Your task to perform on an android device: find snoozed emails in the gmail app Image 0: 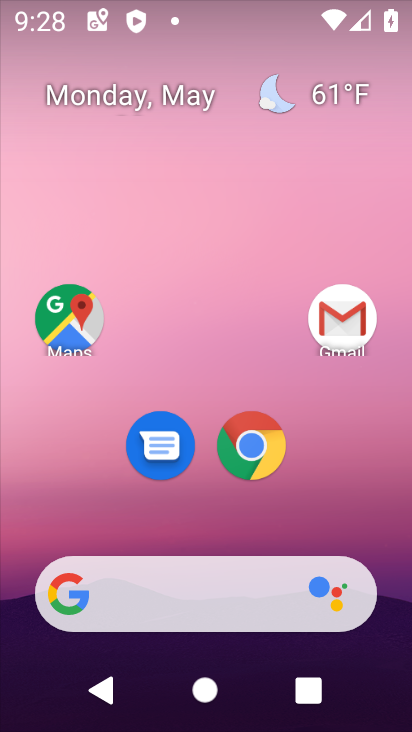
Step 0: drag from (378, 535) to (367, 192)
Your task to perform on an android device: find snoozed emails in the gmail app Image 1: 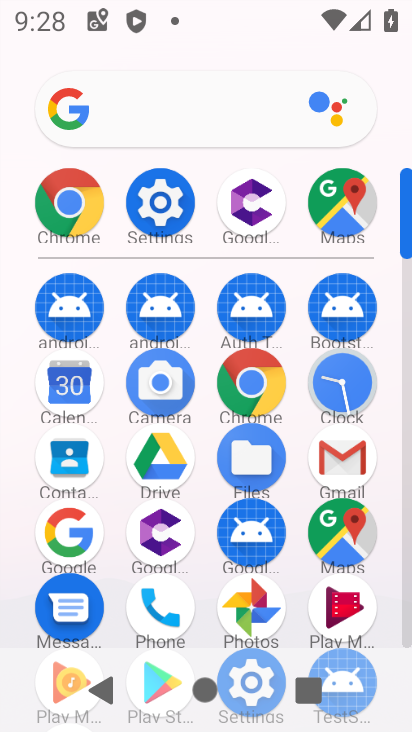
Step 1: click (359, 450)
Your task to perform on an android device: find snoozed emails in the gmail app Image 2: 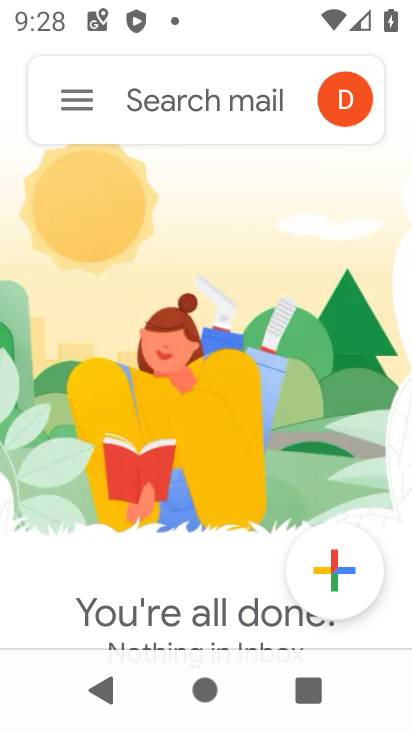
Step 2: click (84, 93)
Your task to perform on an android device: find snoozed emails in the gmail app Image 3: 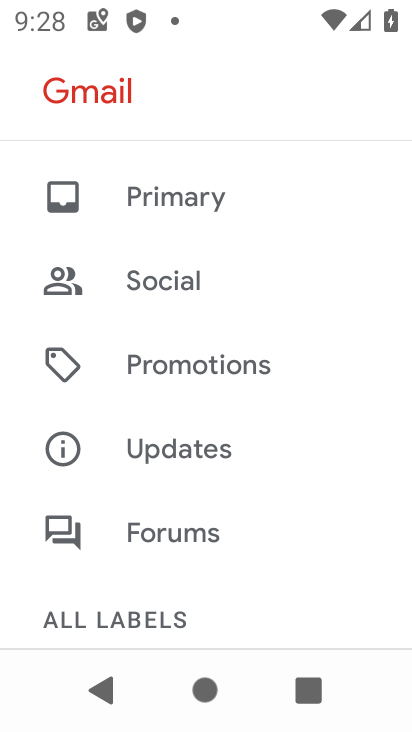
Step 3: drag from (330, 456) to (340, 359)
Your task to perform on an android device: find snoozed emails in the gmail app Image 4: 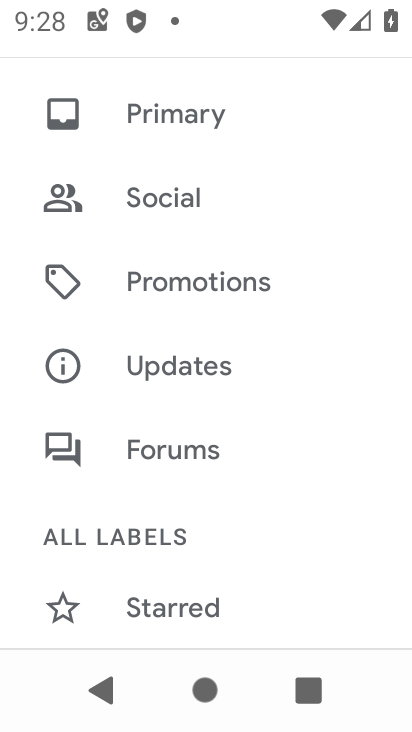
Step 4: drag from (329, 500) to (354, 370)
Your task to perform on an android device: find snoozed emails in the gmail app Image 5: 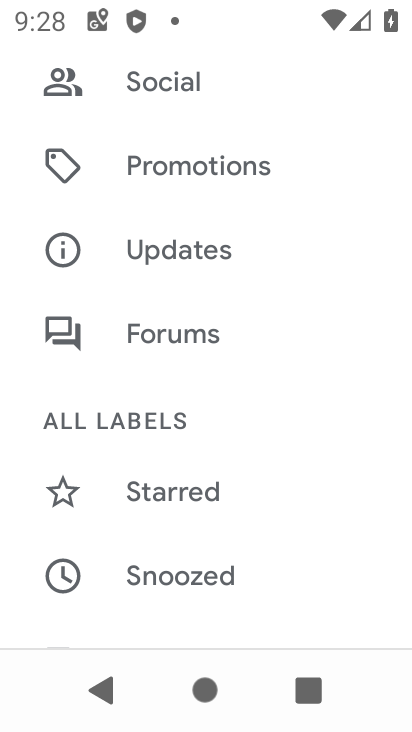
Step 5: drag from (346, 440) to (371, 254)
Your task to perform on an android device: find snoozed emails in the gmail app Image 6: 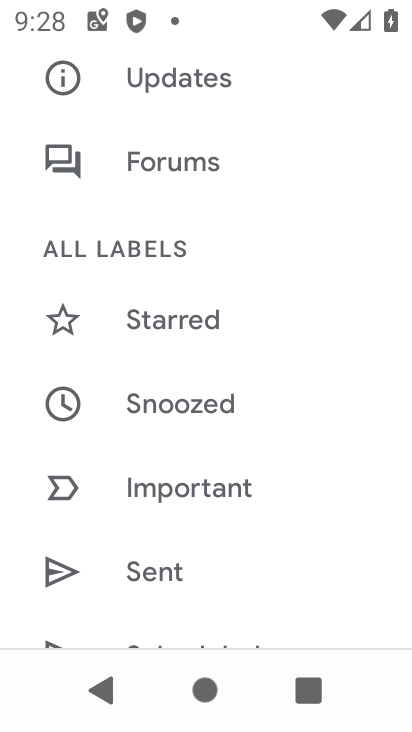
Step 6: drag from (356, 406) to (396, 235)
Your task to perform on an android device: find snoozed emails in the gmail app Image 7: 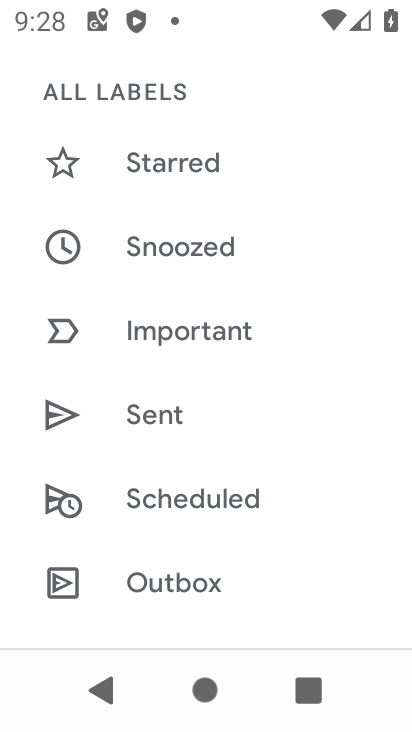
Step 7: drag from (356, 446) to (357, 277)
Your task to perform on an android device: find snoozed emails in the gmail app Image 8: 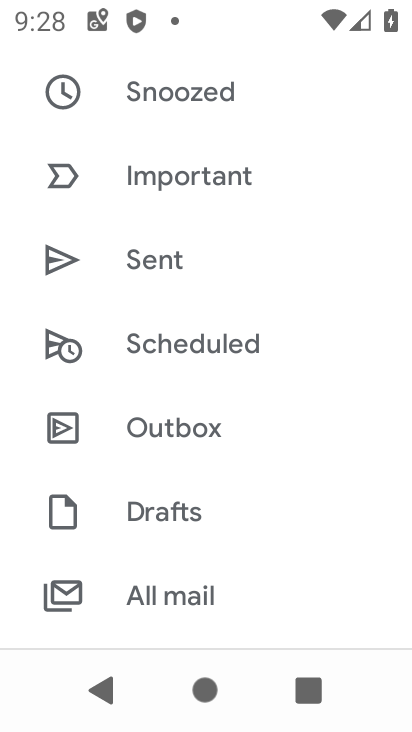
Step 8: click (251, 105)
Your task to perform on an android device: find snoozed emails in the gmail app Image 9: 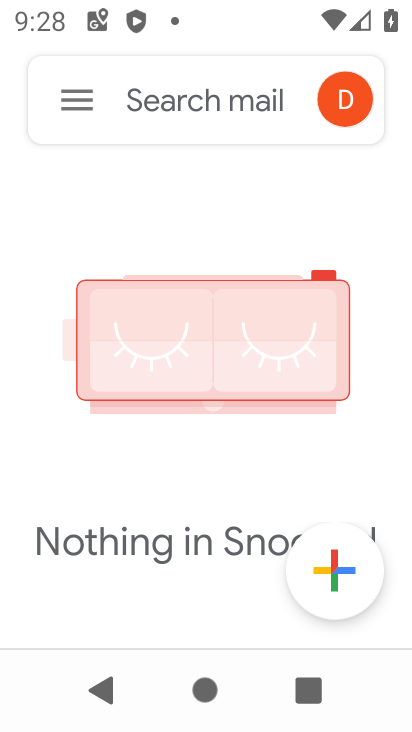
Step 9: task complete